Your task to perform on an android device: Add razer blade to the cart on bestbuy.com, then select checkout. Image 0: 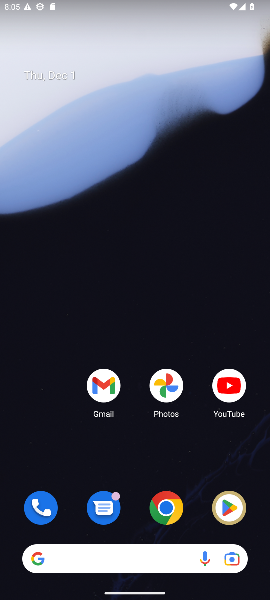
Step 0: click (168, 509)
Your task to perform on an android device: Add razer blade to the cart on bestbuy.com, then select checkout. Image 1: 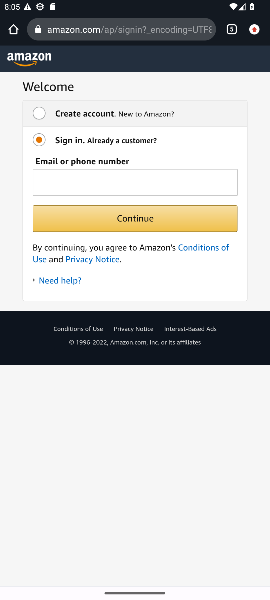
Step 1: click (231, 30)
Your task to perform on an android device: Add razer blade to the cart on bestbuy.com, then select checkout. Image 2: 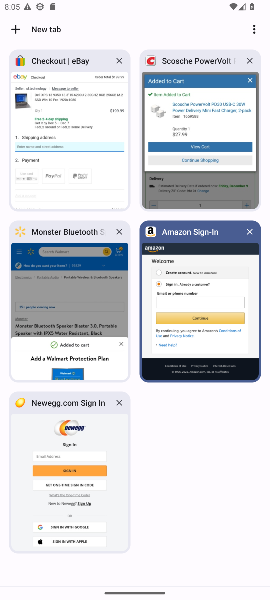
Step 2: click (43, 29)
Your task to perform on an android device: Add razer blade to the cart on bestbuy.com, then select checkout. Image 3: 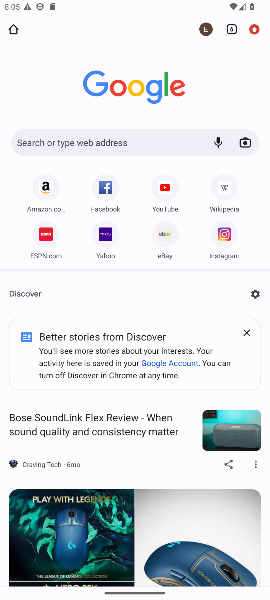
Step 3: click (70, 149)
Your task to perform on an android device: Add razer blade to the cart on bestbuy.com, then select checkout. Image 4: 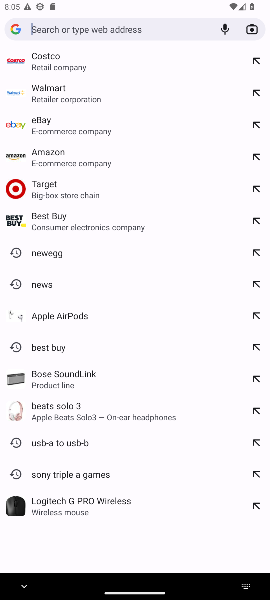
Step 4: click (58, 221)
Your task to perform on an android device: Add razer blade to the cart on bestbuy.com, then select checkout. Image 5: 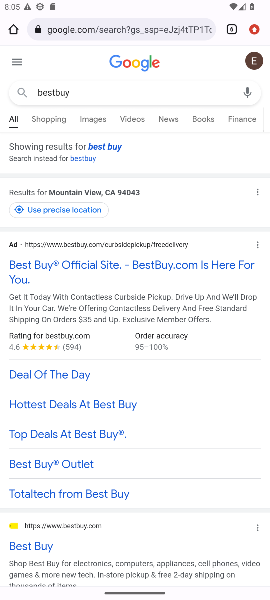
Step 5: click (56, 264)
Your task to perform on an android device: Add razer blade to the cart on bestbuy.com, then select checkout. Image 6: 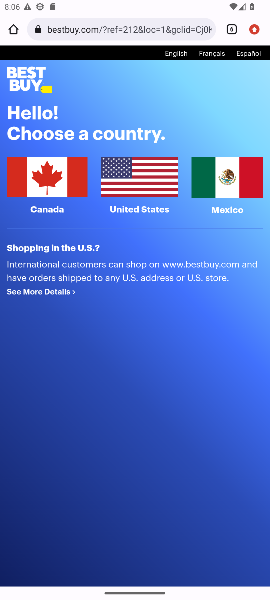
Step 6: click (118, 186)
Your task to perform on an android device: Add razer blade to the cart on bestbuy.com, then select checkout. Image 7: 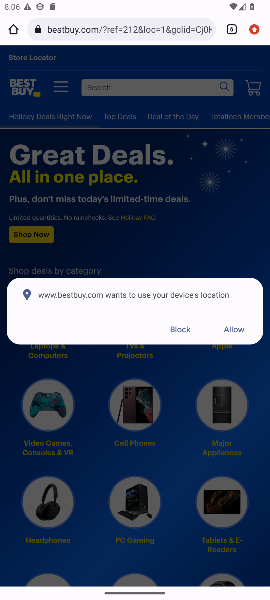
Step 7: click (236, 325)
Your task to perform on an android device: Add razer blade to the cart on bestbuy.com, then select checkout. Image 8: 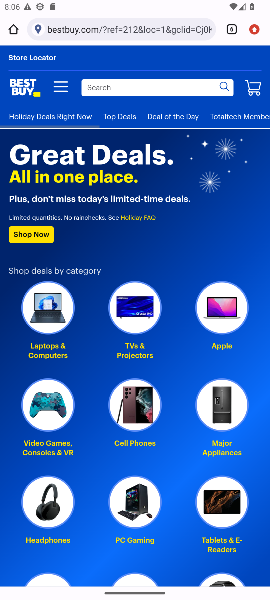
Step 8: click (125, 89)
Your task to perform on an android device: Add razer blade to the cart on bestbuy.com, then select checkout. Image 9: 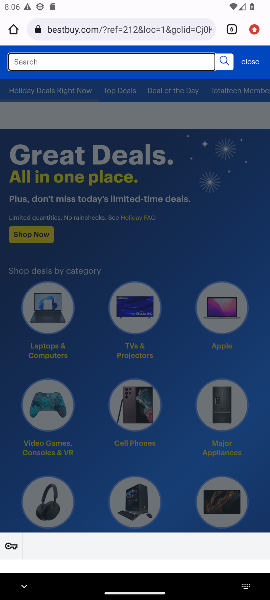
Step 9: click (126, 62)
Your task to perform on an android device: Add razer blade to the cart on bestbuy.com, then select checkout. Image 10: 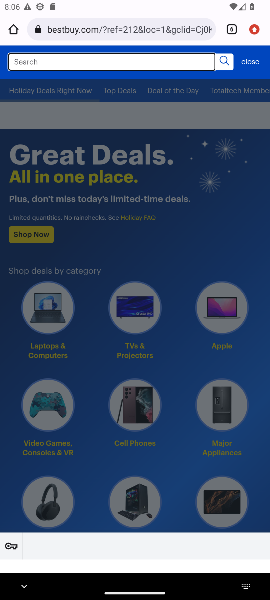
Step 10: click (126, 62)
Your task to perform on an android device: Add razer blade to the cart on bestbuy.com, then select checkout. Image 11: 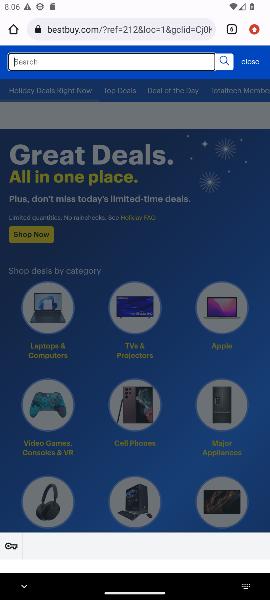
Step 11: type "razer blade"
Your task to perform on an android device: Add razer blade to the cart on bestbuy.com, then select checkout. Image 12: 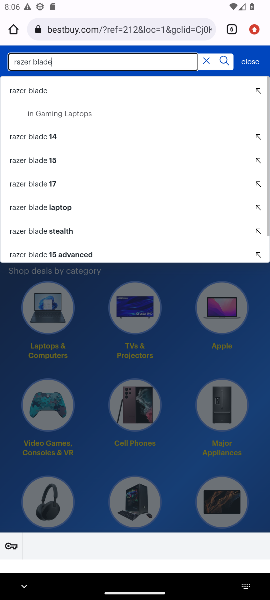
Step 12: click (222, 59)
Your task to perform on an android device: Add razer blade to the cart on bestbuy.com, then select checkout. Image 13: 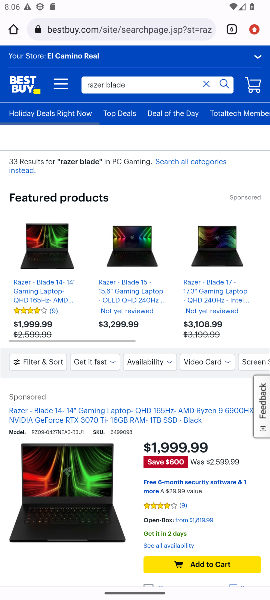
Step 13: drag from (78, 460) to (90, 303)
Your task to perform on an android device: Add razer blade to the cart on bestbuy.com, then select checkout. Image 14: 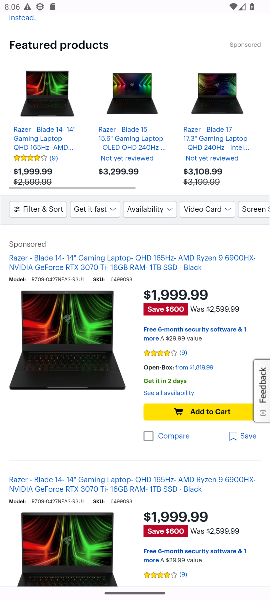
Step 14: click (193, 414)
Your task to perform on an android device: Add razer blade to the cart on bestbuy.com, then select checkout. Image 15: 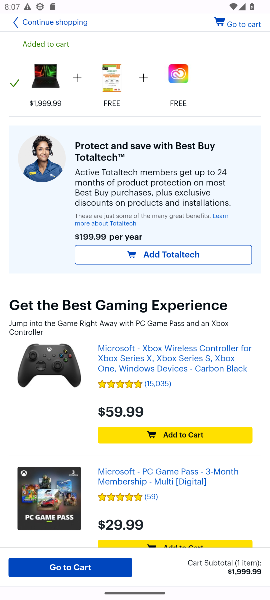
Step 15: click (78, 571)
Your task to perform on an android device: Add razer blade to the cart on bestbuy.com, then select checkout. Image 16: 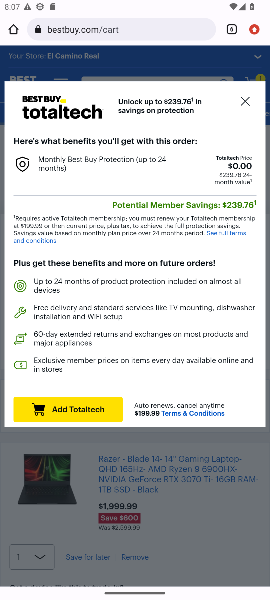
Step 16: click (243, 103)
Your task to perform on an android device: Add razer blade to the cart on bestbuy.com, then select checkout. Image 17: 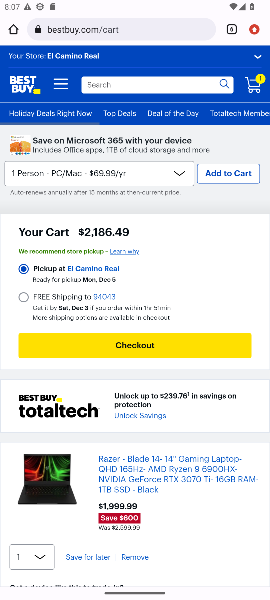
Step 17: click (101, 349)
Your task to perform on an android device: Add razer blade to the cart on bestbuy.com, then select checkout. Image 18: 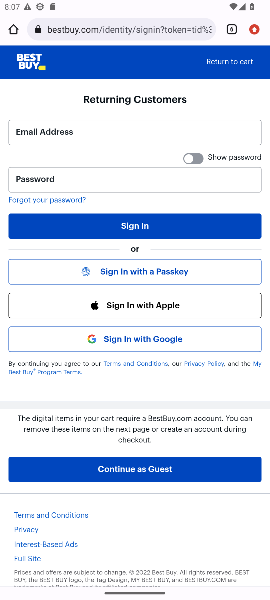
Step 18: task complete